Your task to perform on an android device: uninstall "Google Docs" Image 0: 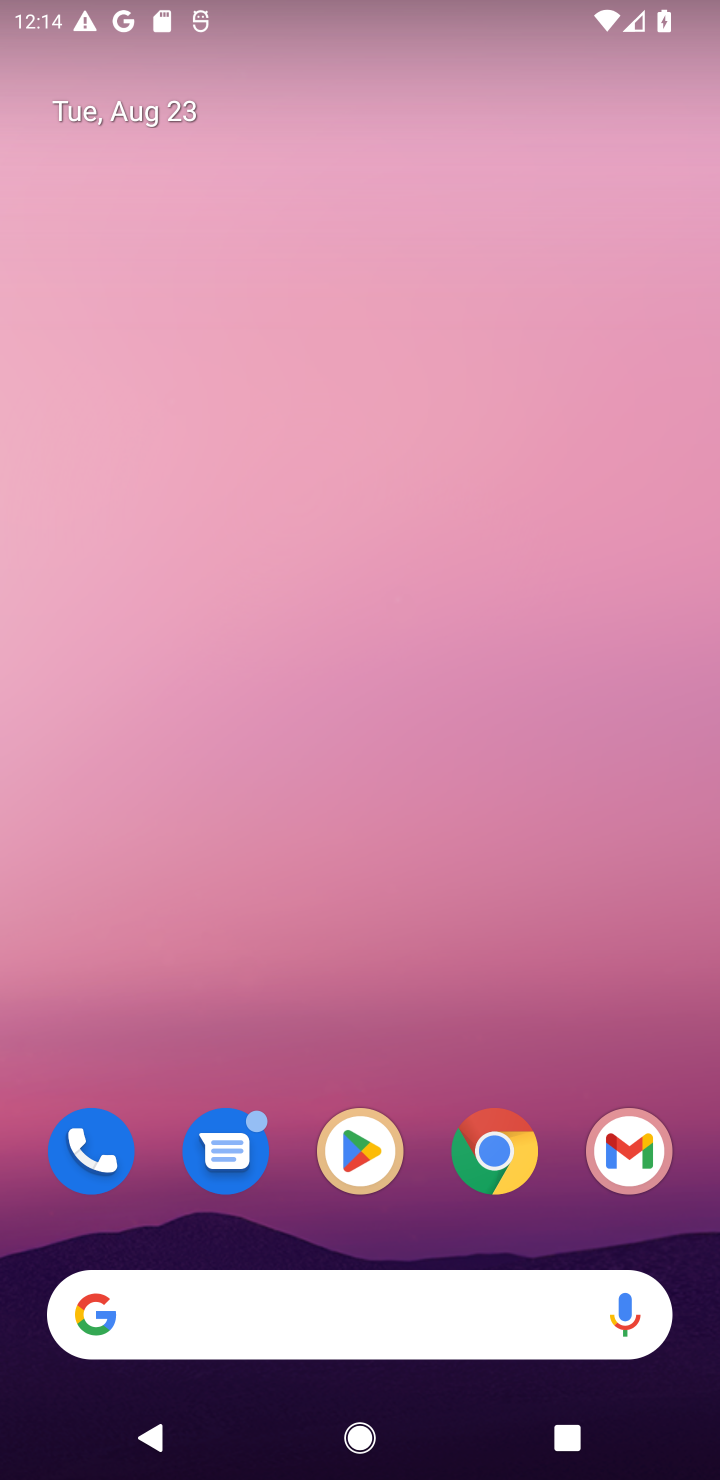
Step 0: click (363, 1123)
Your task to perform on an android device: uninstall "Google Docs" Image 1: 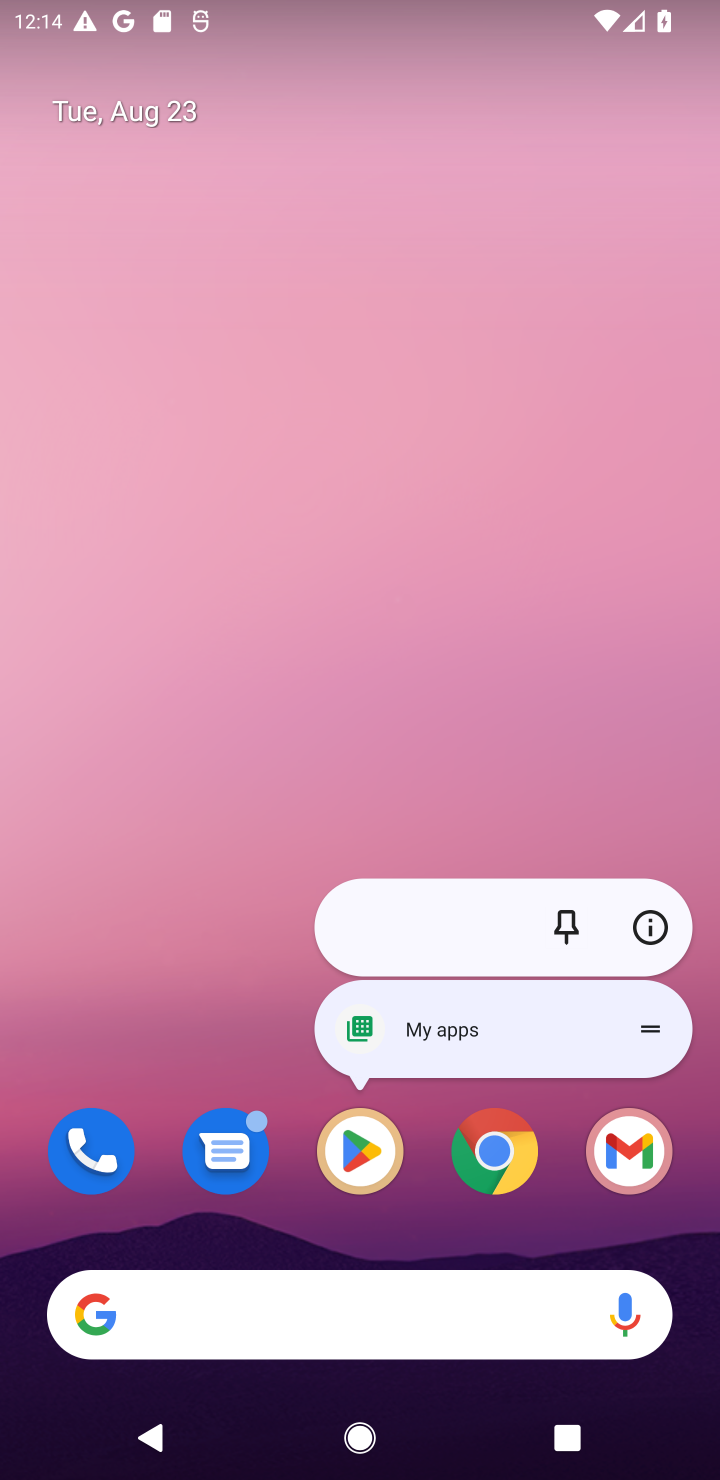
Step 1: click (361, 1174)
Your task to perform on an android device: uninstall "Google Docs" Image 2: 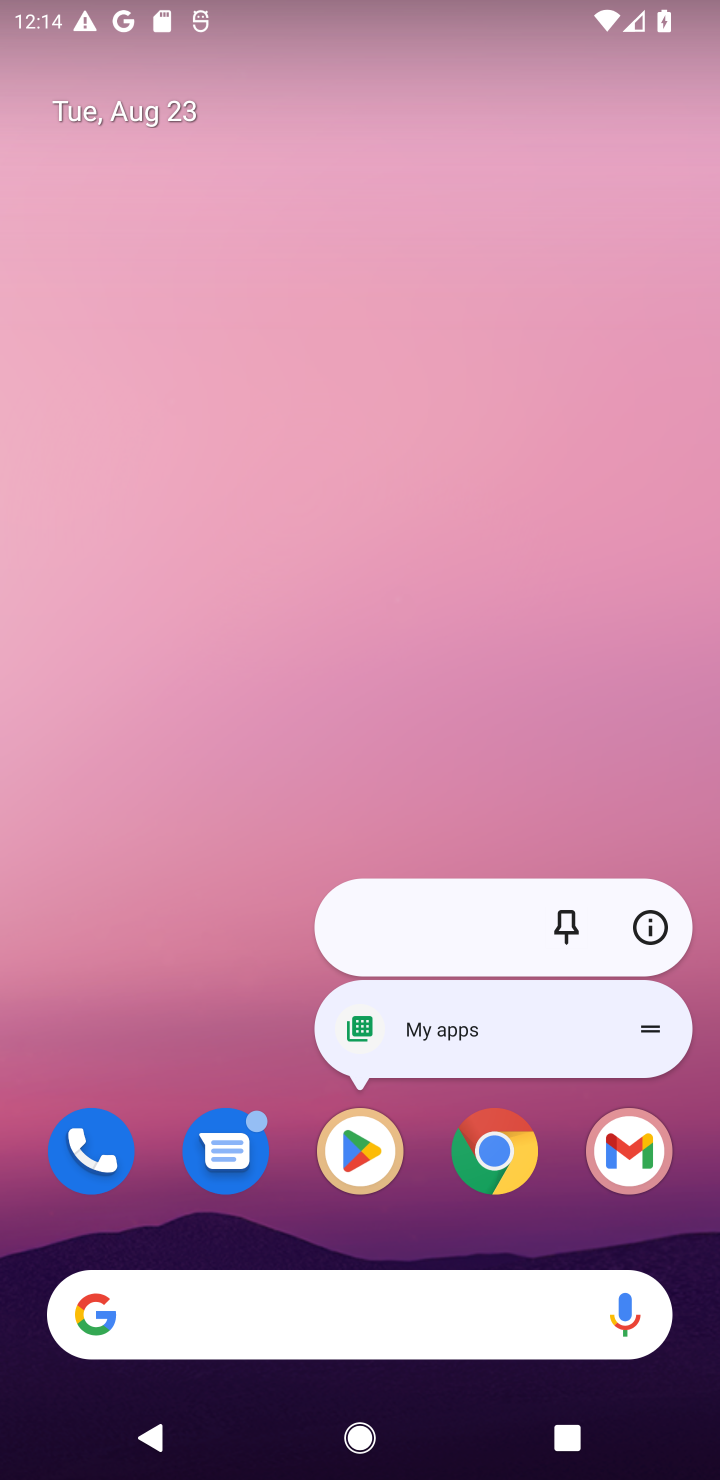
Step 2: click (355, 1174)
Your task to perform on an android device: uninstall "Google Docs" Image 3: 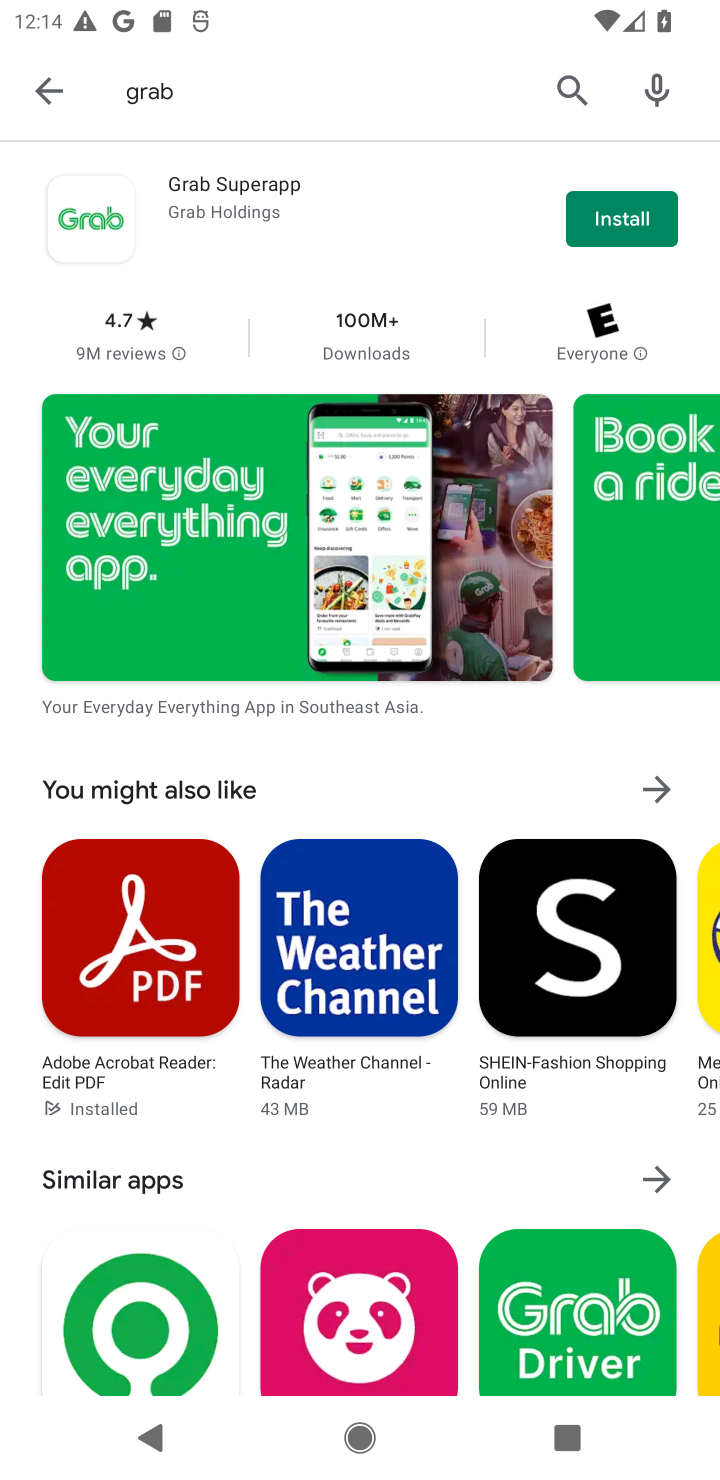
Step 3: click (583, 90)
Your task to perform on an android device: uninstall "Google Docs" Image 4: 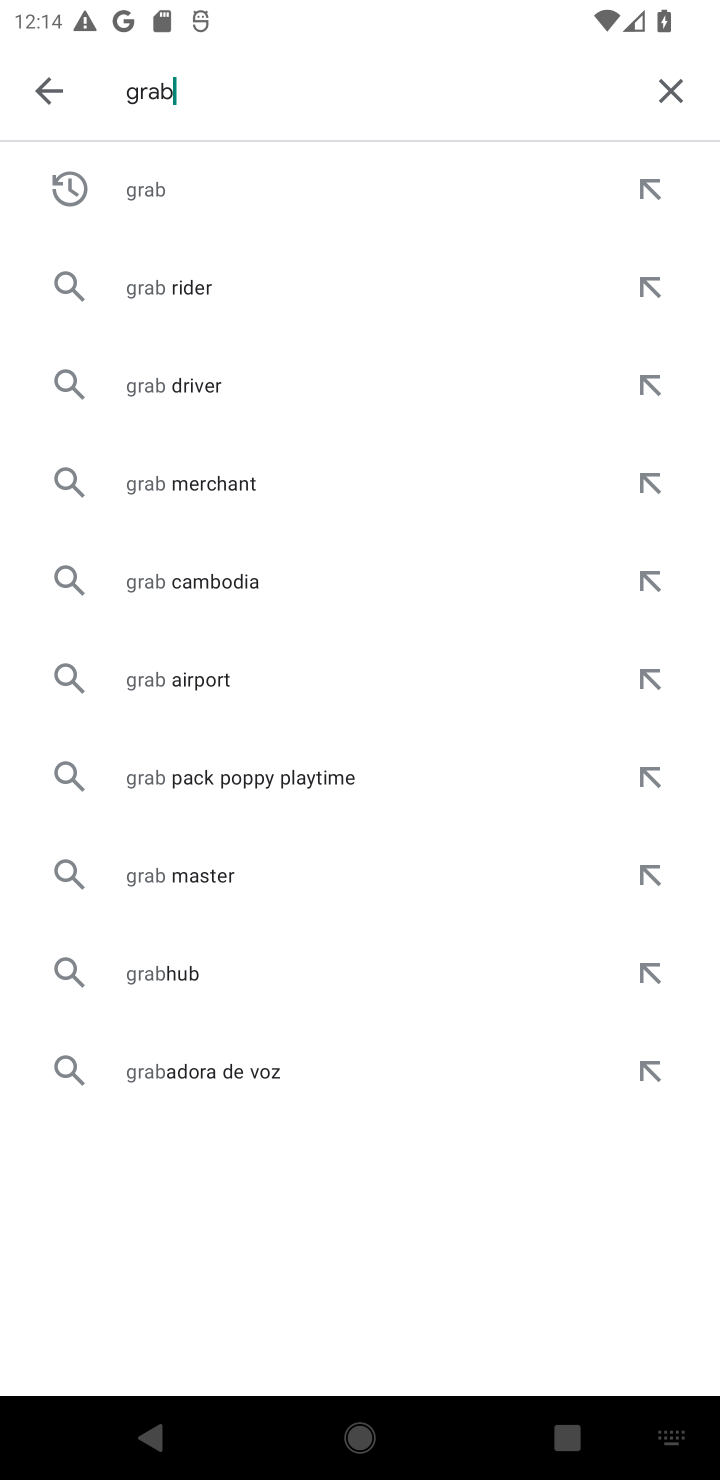
Step 4: click (663, 75)
Your task to perform on an android device: uninstall "Google Docs" Image 5: 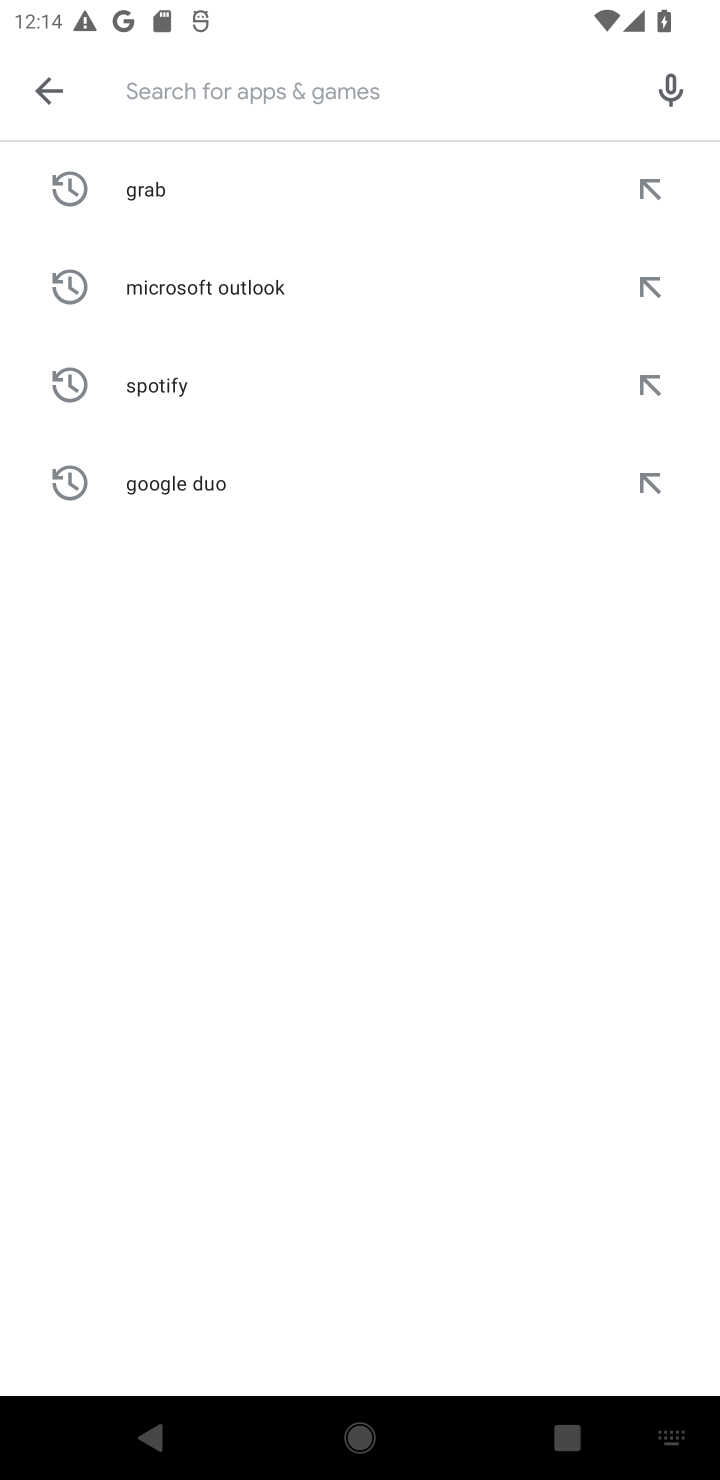
Step 5: type "Google Docs"
Your task to perform on an android device: uninstall "Google Docs" Image 6: 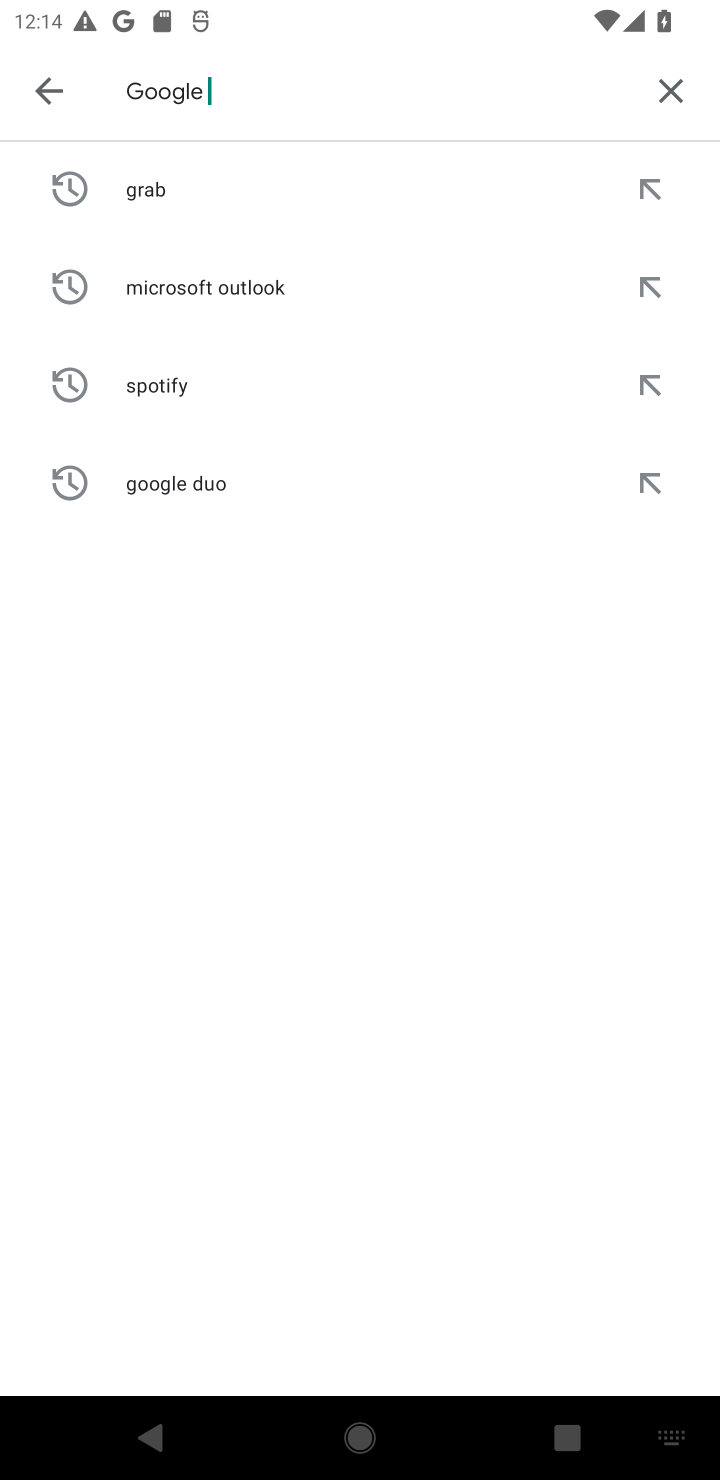
Step 6: type ""
Your task to perform on an android device: uninstall "Google Docs" Image 7: 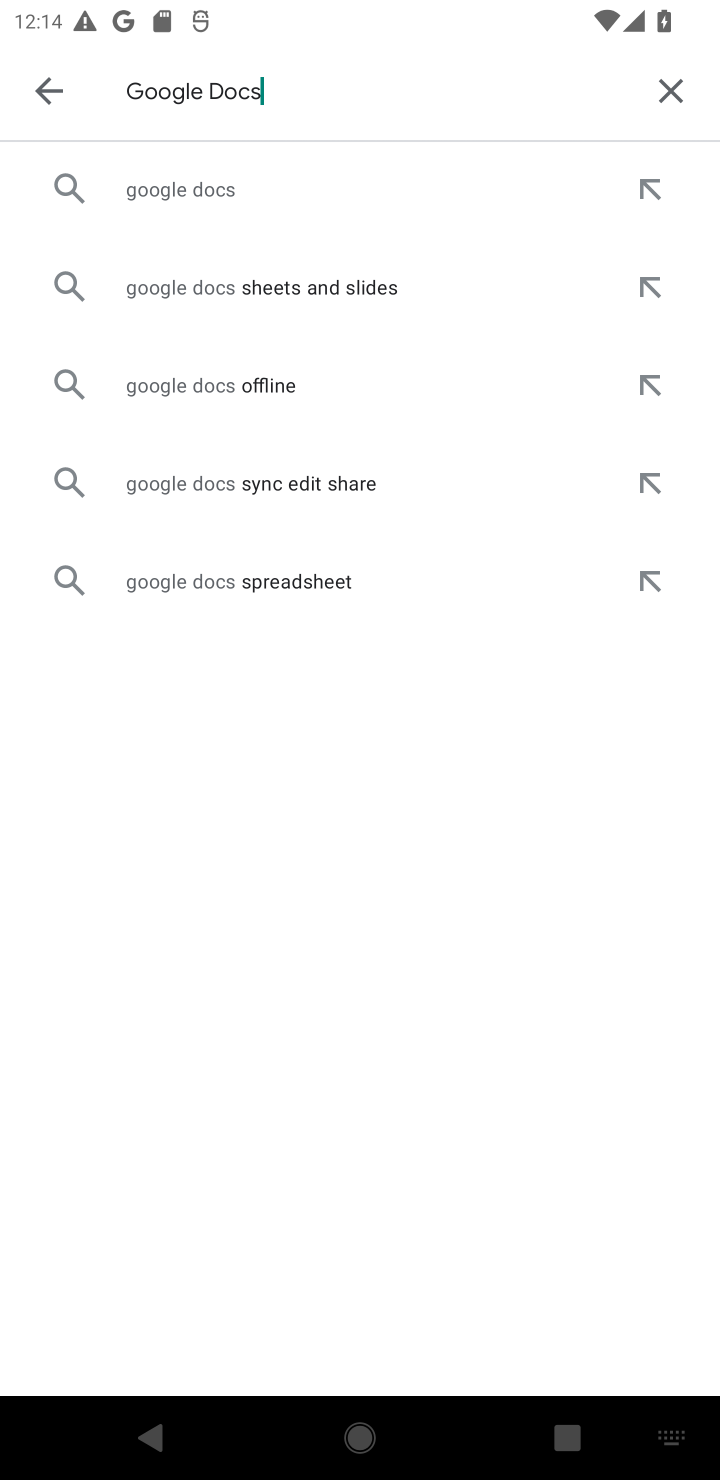
Step 7: click (259, 195)
Your task to perform on an android device: uninstall "Google Docs" Image 8: 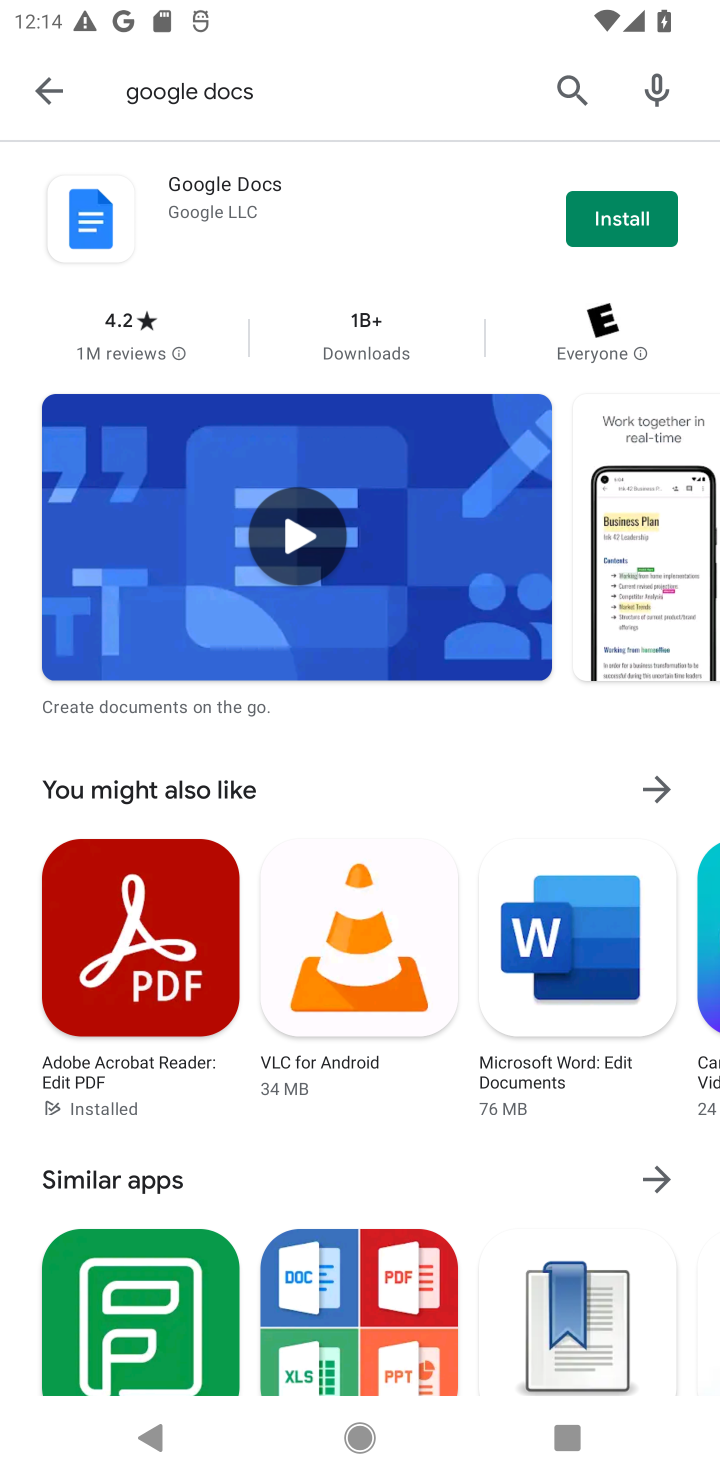
Step 8: click (365, 219)
Your task to perform on an android device: uninstall "Google Docs" Image 9: 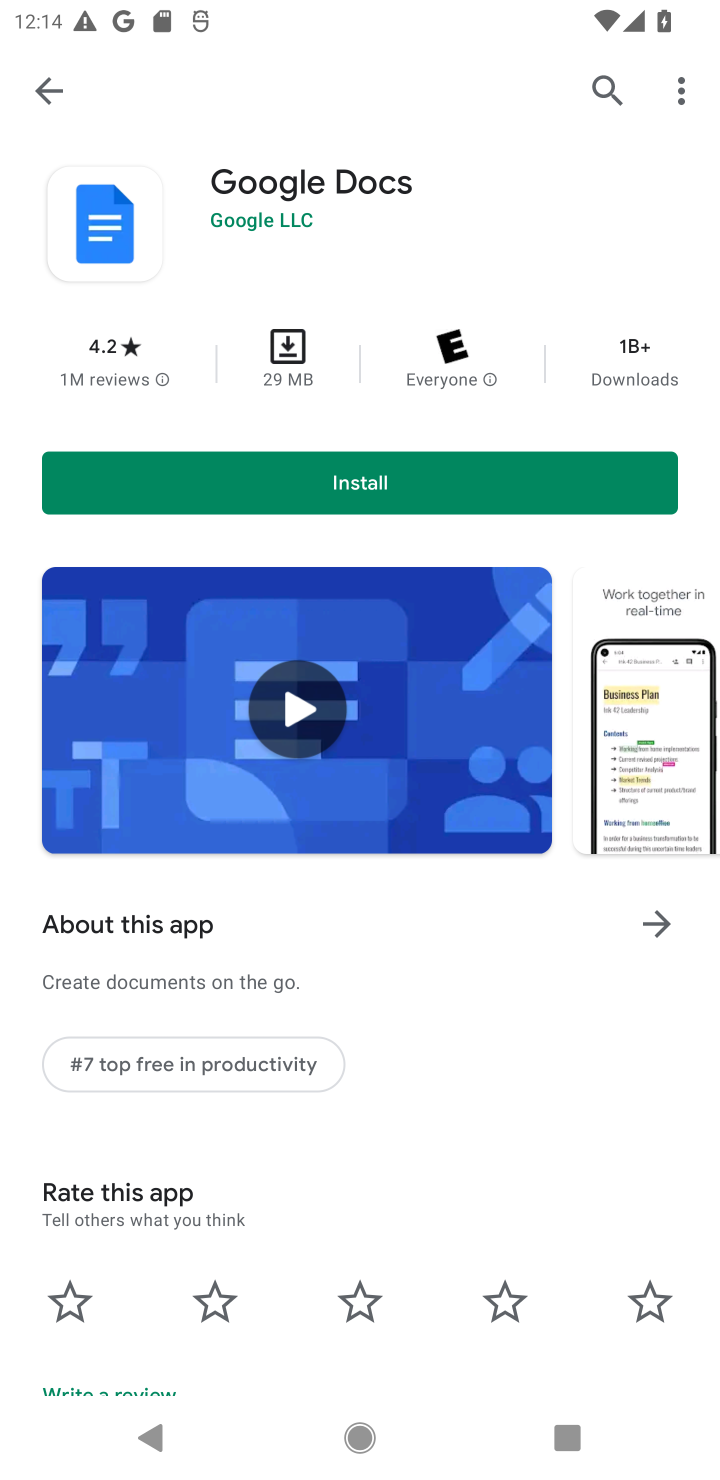
Step 9: task complete